Your task to perform on an android device: open a bookmark in the chrome app Image 0: 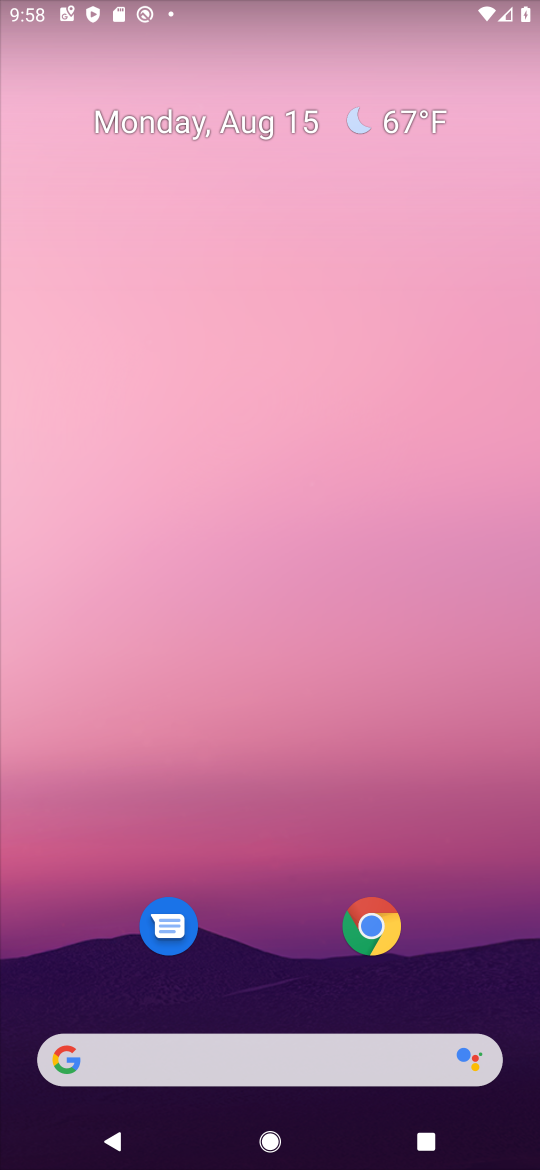
Step 0: press home button
Your task to perform on an android device: open a bookmark in the chrome app Image 1: 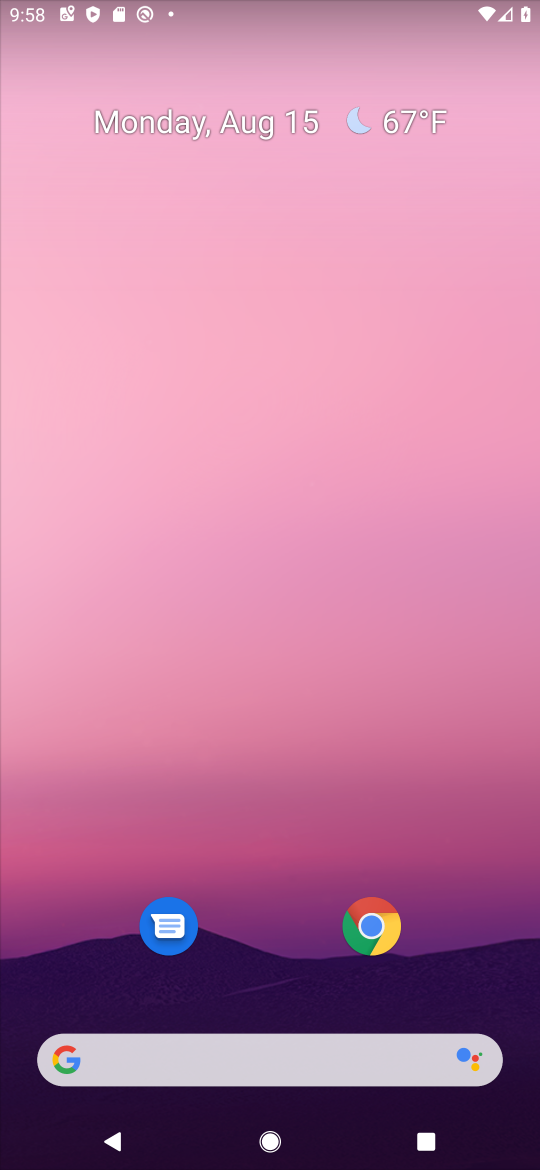
Step 1: press home button
Your task to perform on an android device: open a bookmark in the chrome app Image 2: 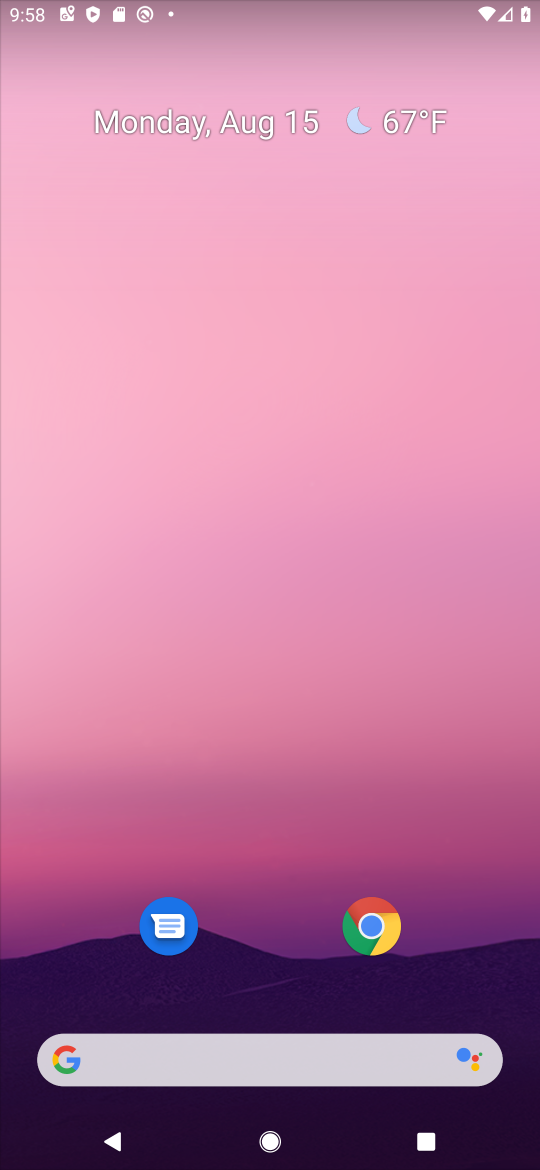
Step 2: click (379, 930)
Your task to perform on an android device: open a bookmark in the chrome app Image 3: 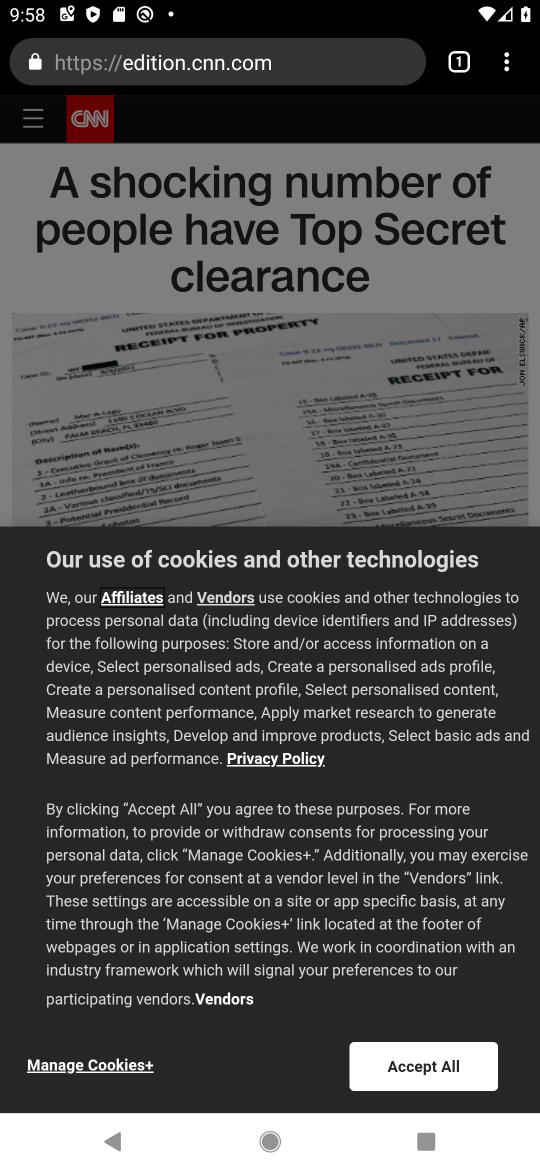
Step 3: click (504, 66)
Your task to perform on an android device: open a bookmark in the chrome app Image 4: 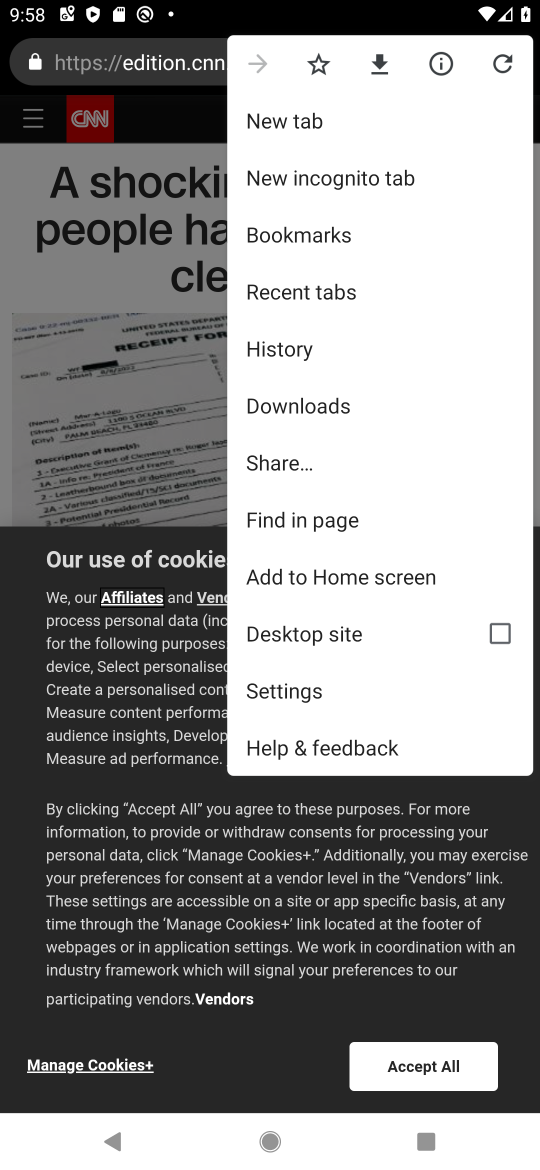
Step 4: click (309, 688)
Your task to perform on an android device: open a bookmark in the chrome app Image 5: 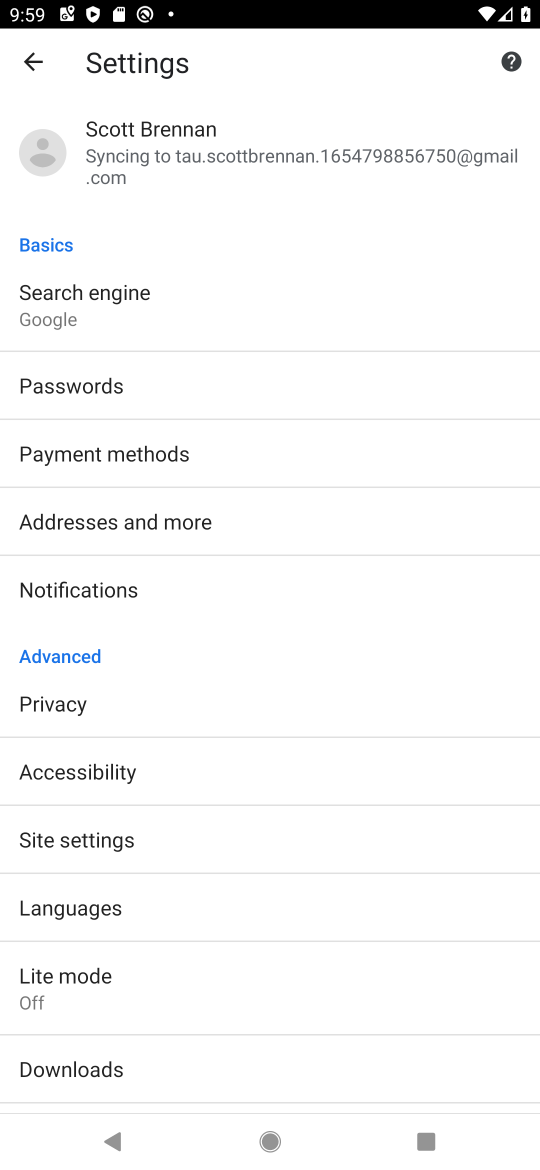
Step 5: click (23, 61)
Your task to perform on an android device: open a bookmark in the chrome app Image 6: 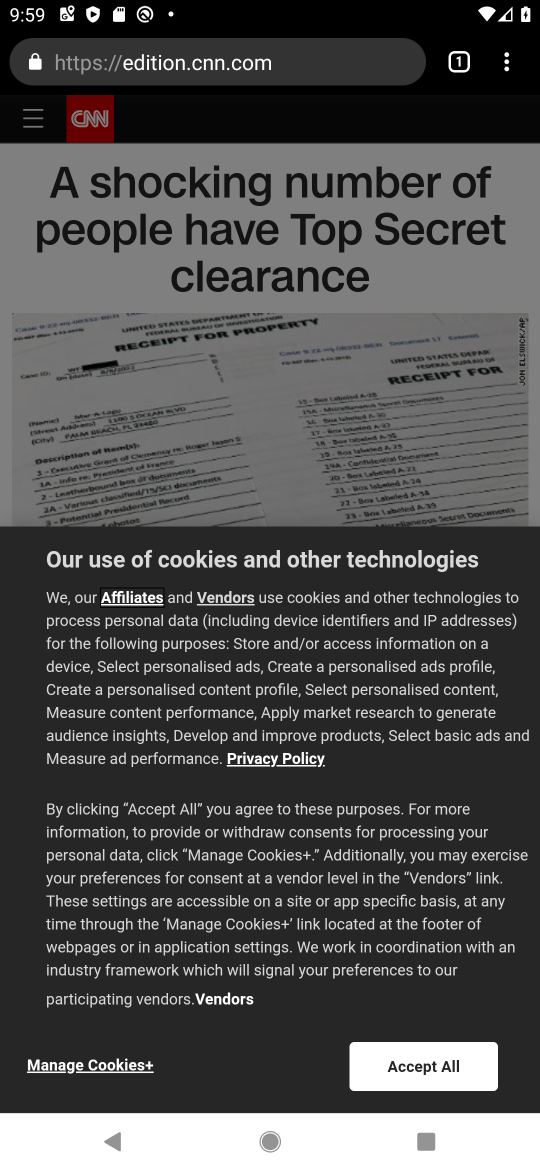
Step 6: click (511, 66)
Your task to perform on an android device: open a bookmark in the chrome app Image 7: 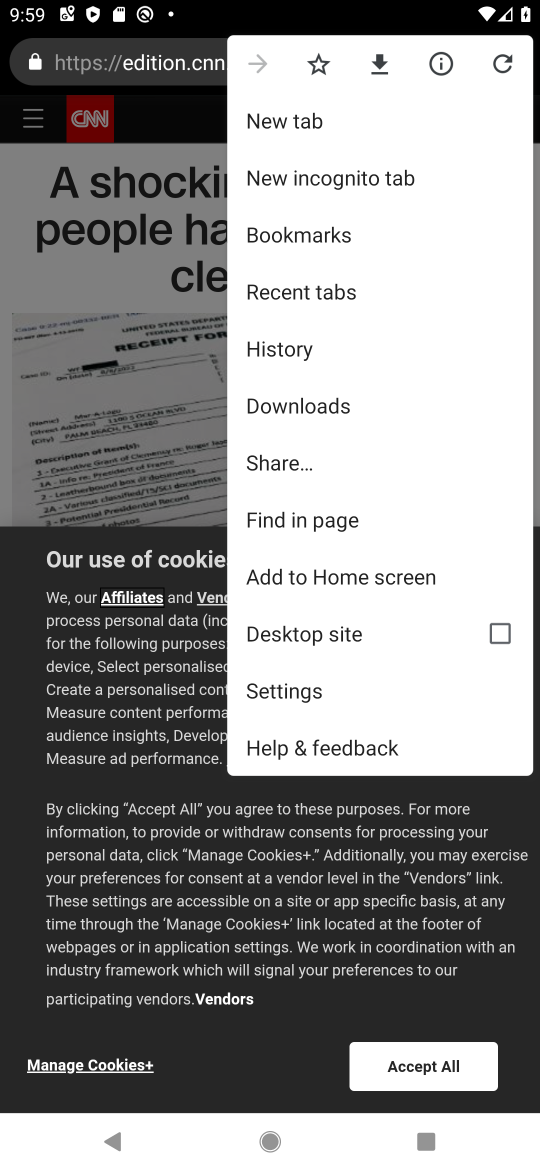
Step 7: click (318, 227)
Your task to perform on an android device: open a bookmark in the chrome app Image 8: 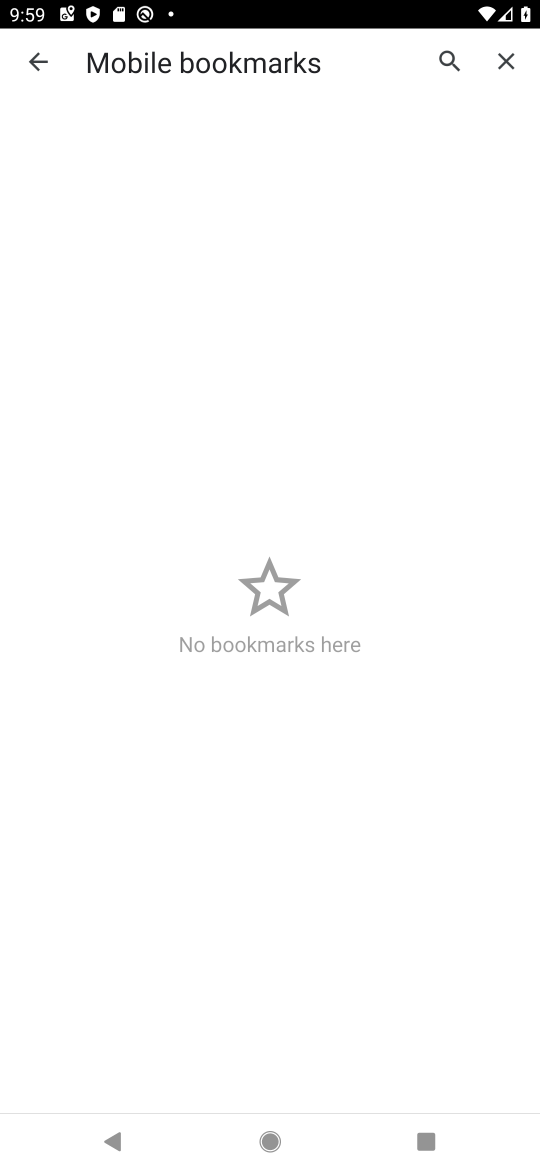
Step 8: task complete